Your task to perform on an android device: See recent photos Image 0: 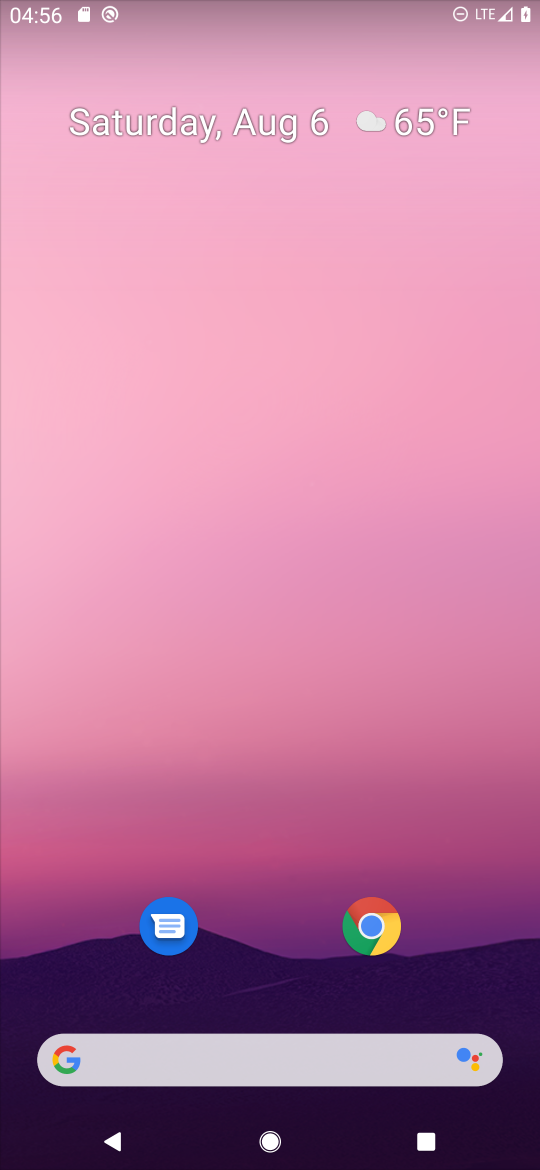
Step 0: drag from (283, 949) to (290, 251)
Your task to perform on an android device: See recent photos Image 1: 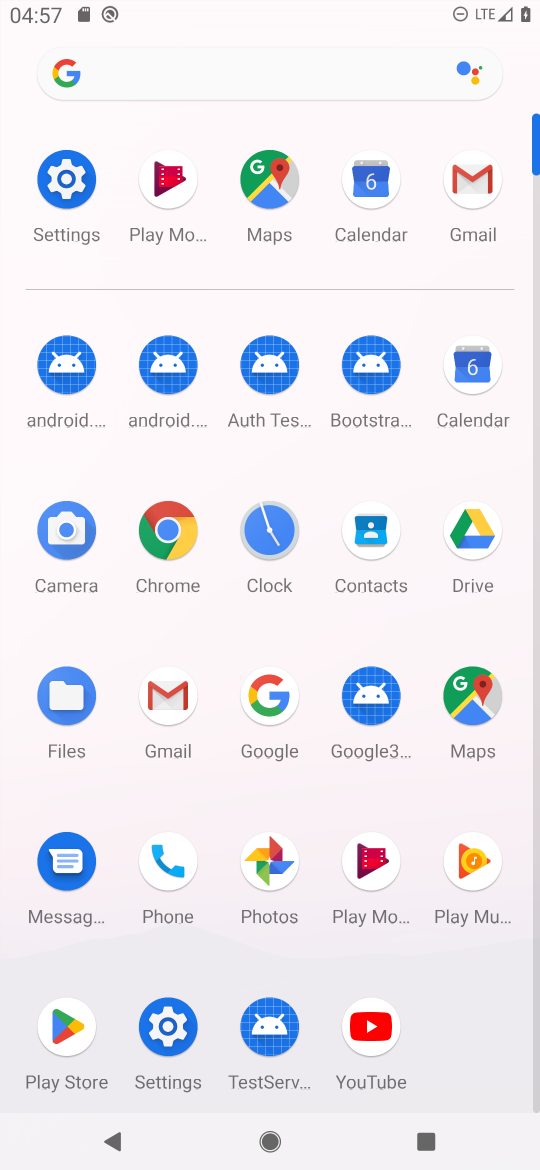
Step 1: click (284, 841)
Your task to perform on an android device: See recent photos Image 2: 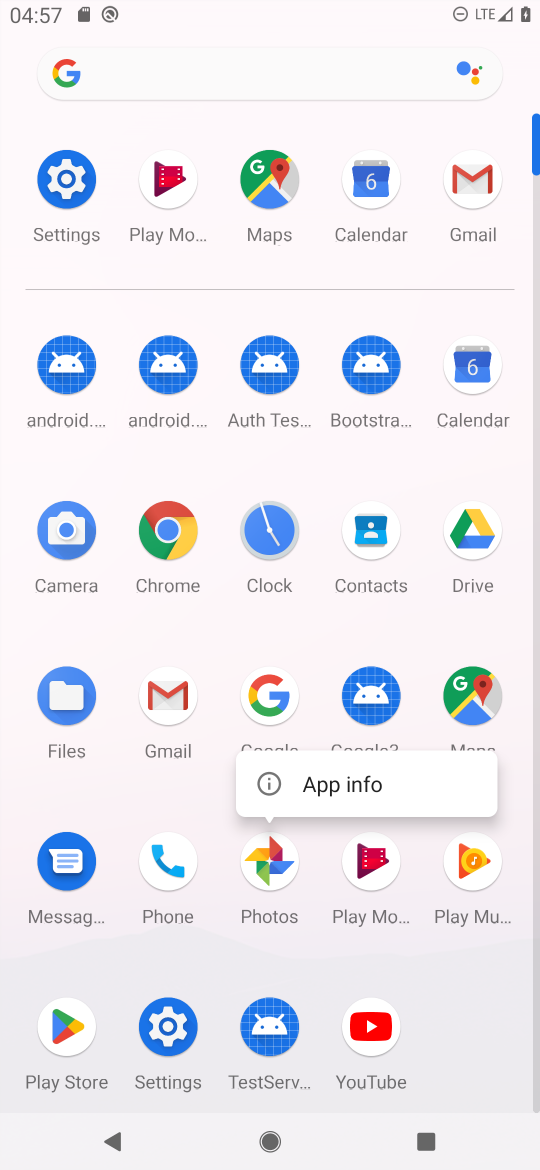
Step 2: click (242, 889)
Your task to perform on an android device: See recent photos Image 3: 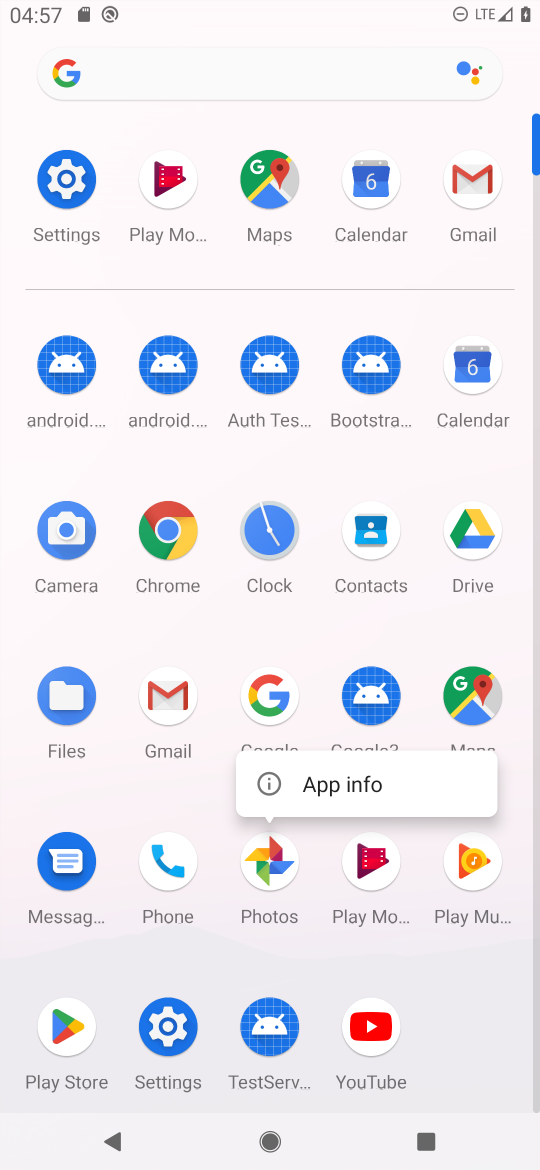
Step 3: click (254, 889)
Your task to perform on an android device: See recent photos Image 4: 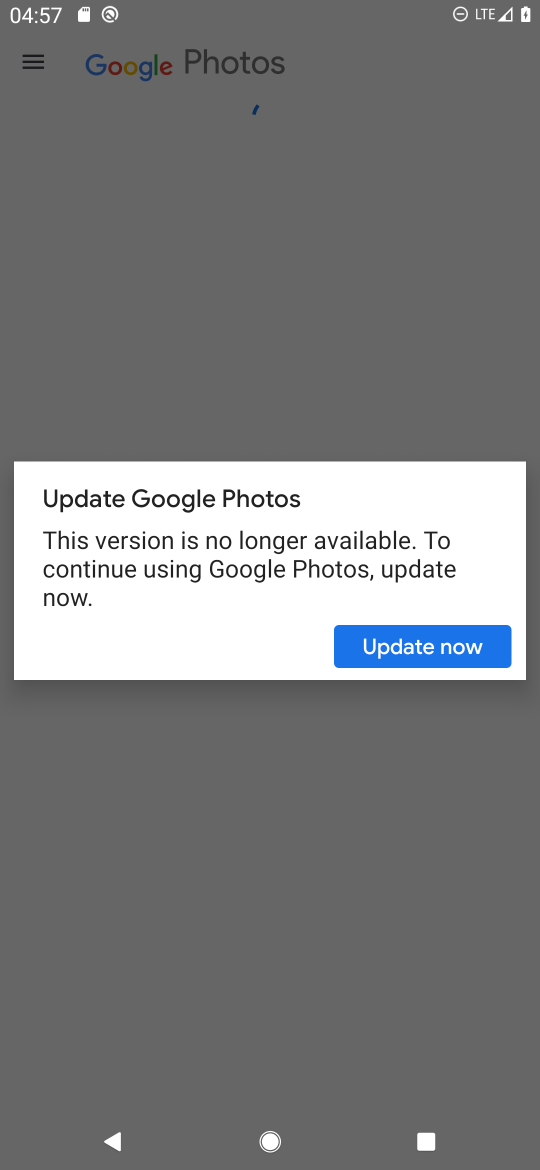
Step 4: task complete